Your task to perform on an android device: change the clock display to digital Image 0: 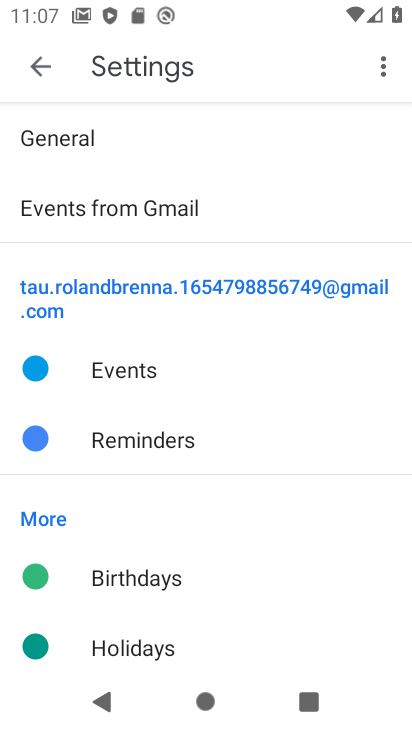
Step 0: press home button
Your task to perform on an android device: change the clock display to digital Image 1: 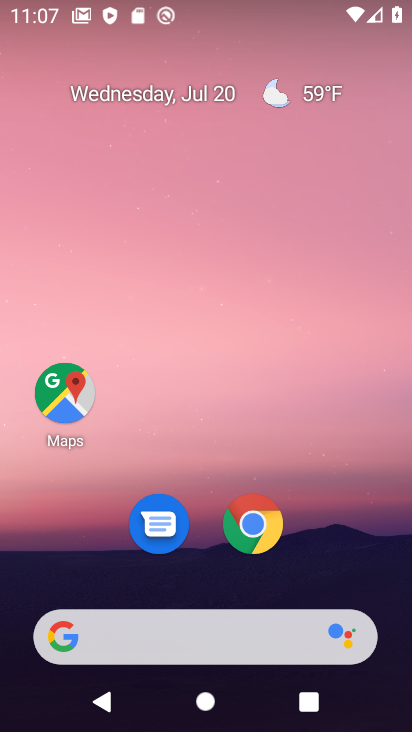
Step 1: drag from (208, 631) to (231, 69)
Your task to perform on an android device: change the clock display to digital Image 2: 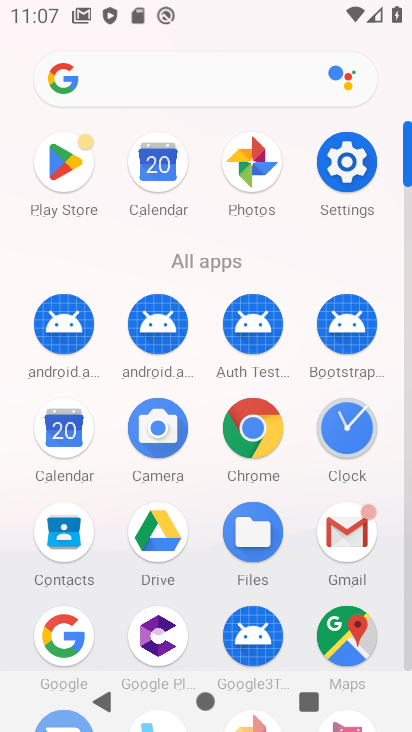
Step 2: click (351, 433)
Your task to perform on an android device: change the clock display to digital Image 3: 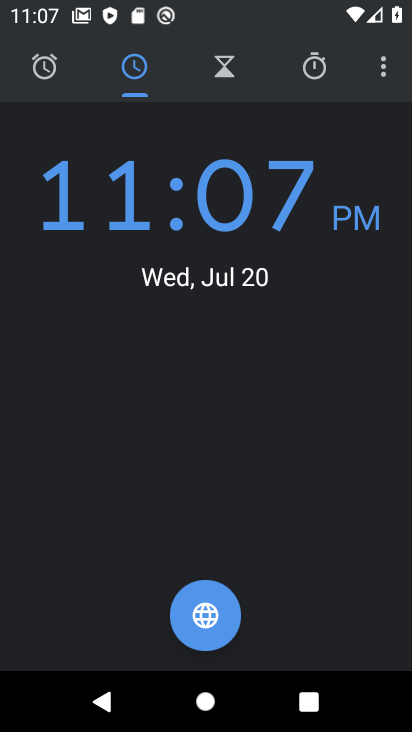
Step 3: click (383, 73)
Your task to perform on an android device: change the clock display to digital Image 4: 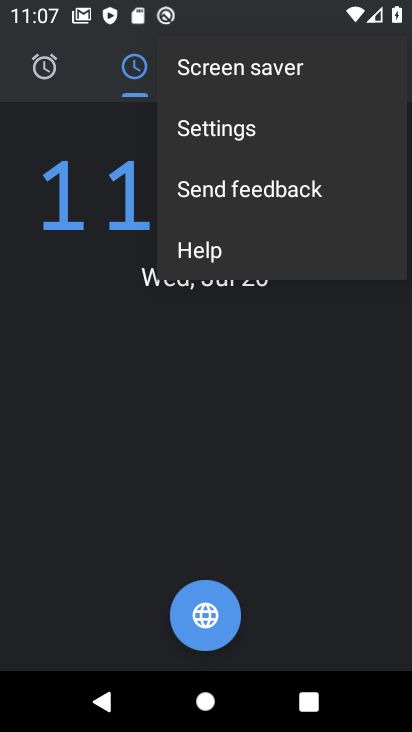
Step 4: click (236, 135)
Your task to perform on an android device: change the clock display to digital Image 5: 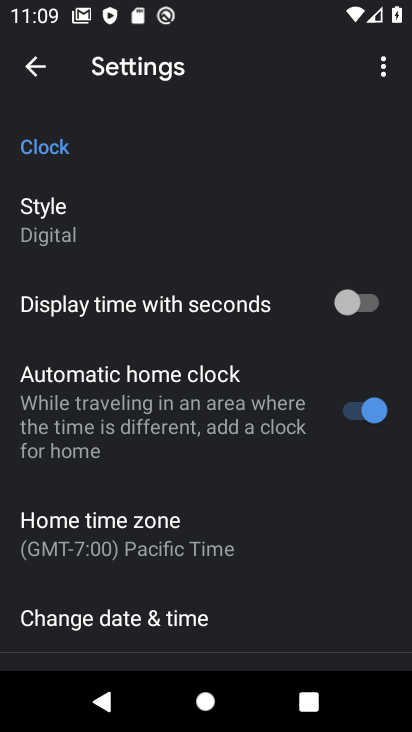
Step 5: task complete